Your task to perform on an android device: Open accessibility settings Image 0: 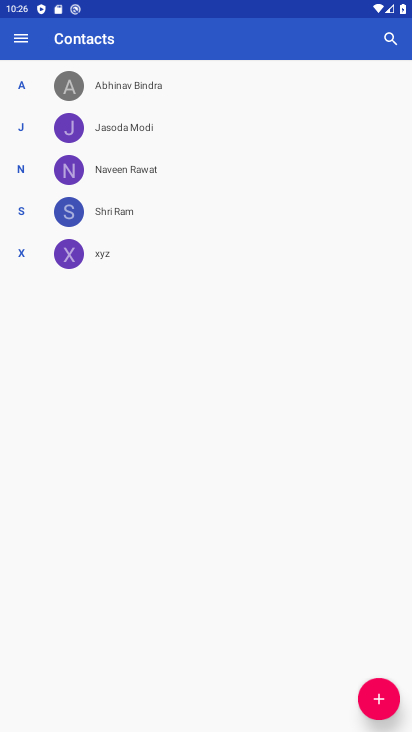
Step 0: press home button
Your task to perform on an android device: Open accessibility settings Image 1: 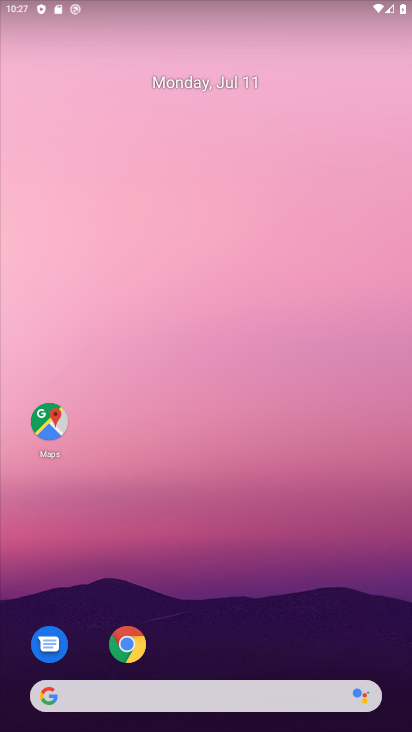
Step 1: drag from (189, 626) to (208, 2)
Your task to perform on an android device: Open accessibility settings Image 2: 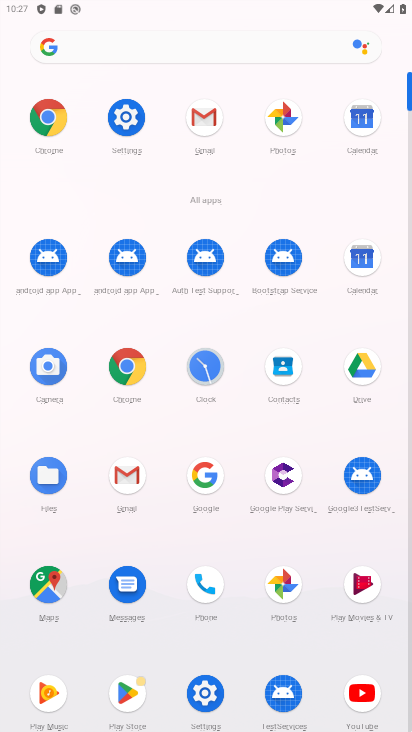
Step 2: click (130, 114)
Your task to perform on an android device: Open accessibility settings Image 3: 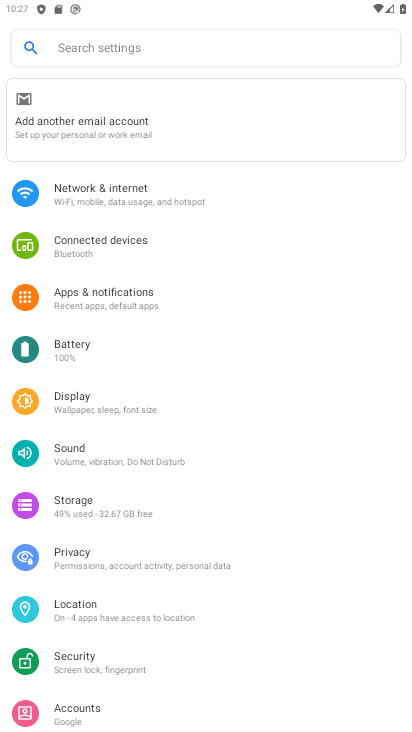
Step 3: drag from (128, 573) to (156, 441)
Your task to perform on an android device: Open accessibility settings Image 4: 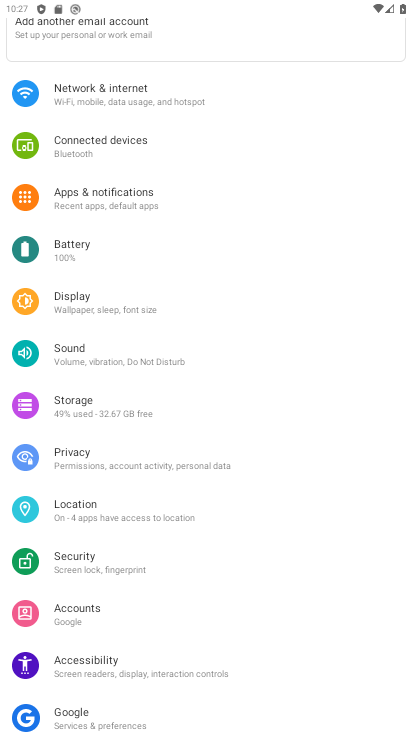
Step 4: click (118, 674)
Your task to perform on an android device: Open accessibility settings Image 5: 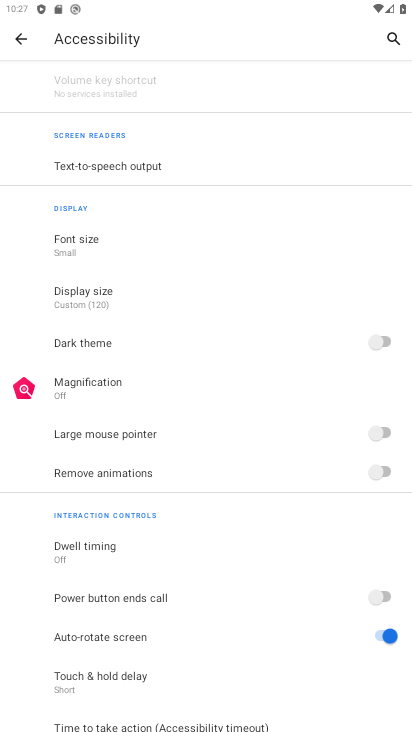
Step 5: task complete